Your task to perform on an android device: Open network settings Image 0: 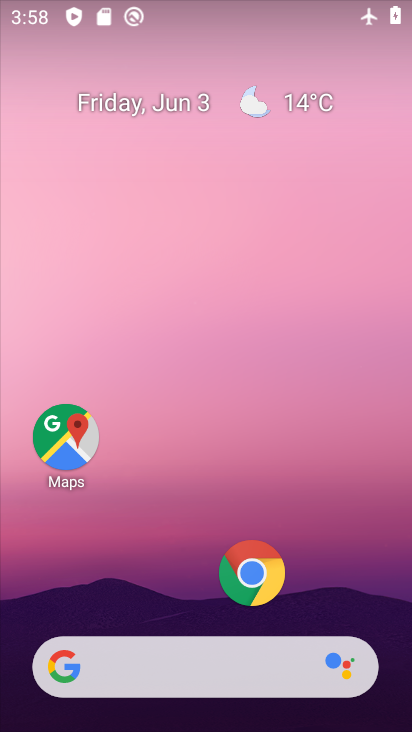
Step 0: drag from (159, 566) to (178, 406)
Your task to perform on an android device: Open network settings Image 1: 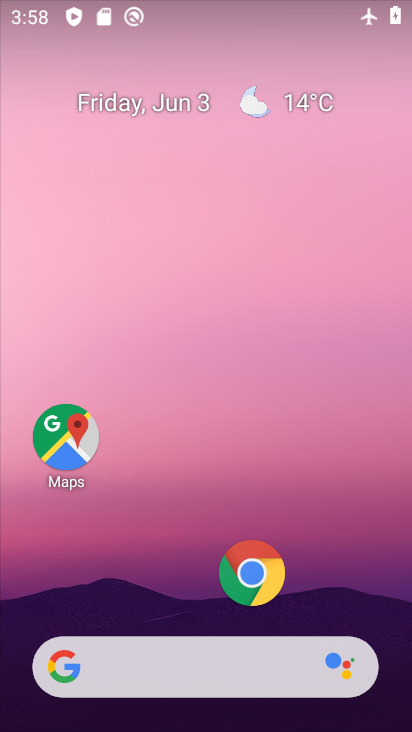
Step 1: drag from (161, 520) to (185, 156)
Your task to perform on an android device: Open network settings Image 2: 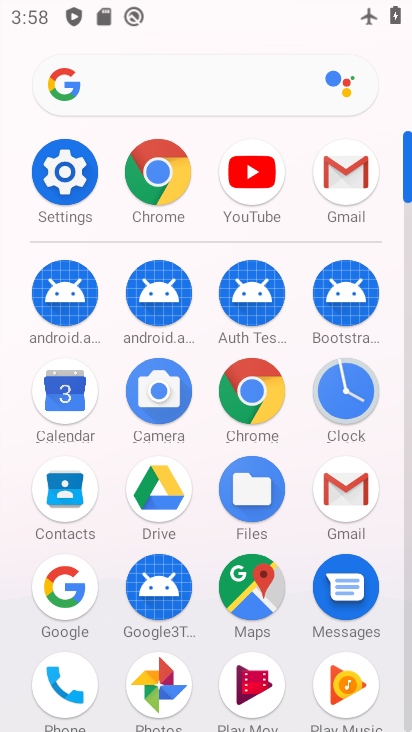
Step 2: click (71, 199)
Your task to perform on an android device: Open network settings Image 3: 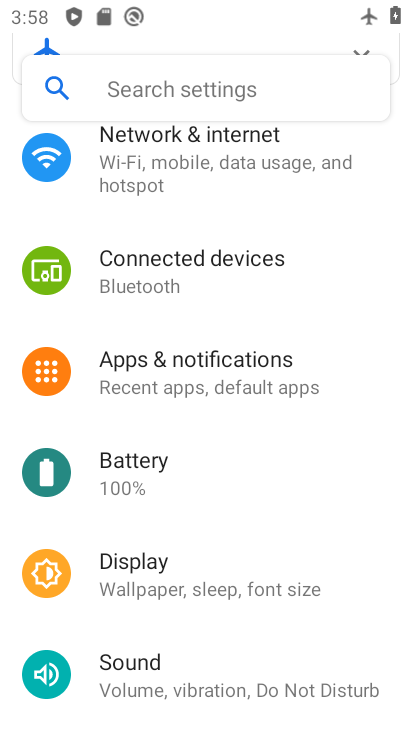
Step 3: drag from (140, 328) to (132, 520)
Your task to perform on an android device: Open network settings Image 4: 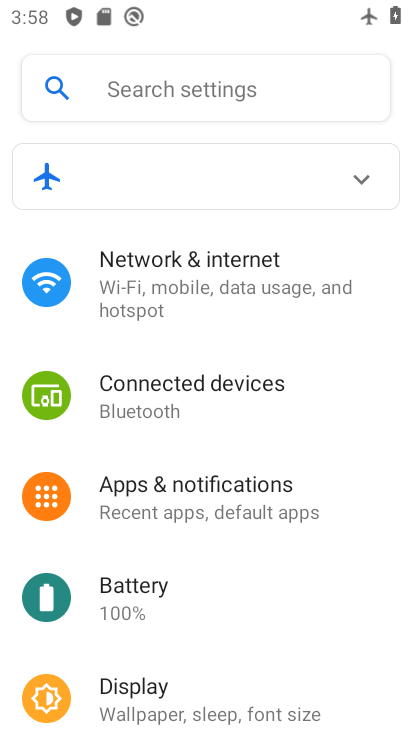
Step 4: click (181, 307)
Your task to perform on an android device: Open network settings Image 5: 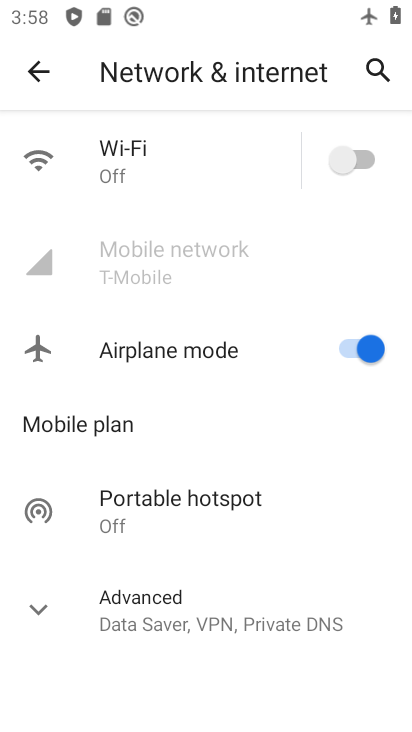
Step 5: click (171, 271)
Your task to perform on an android device: Open network settings Image 6: 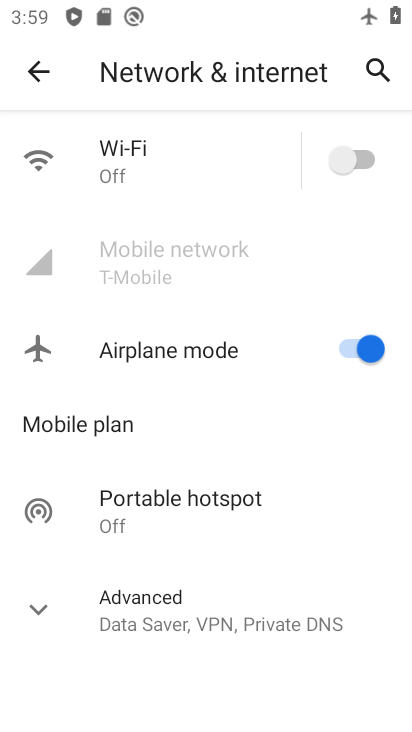
Step 6: click (216, 260)
Your task to perform on an android device: Open network settings Image 7: 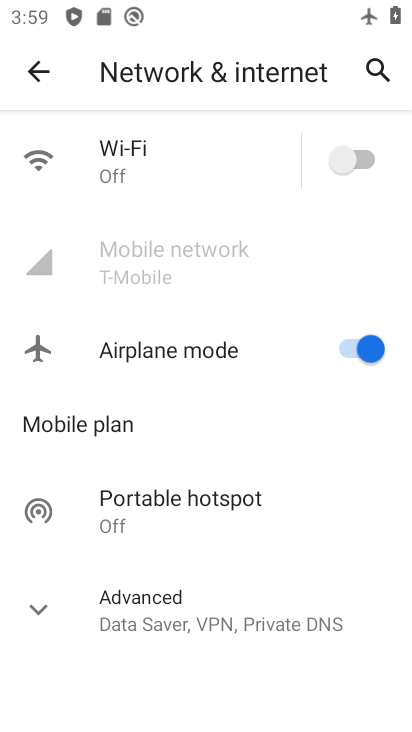
Step 7: task complete